Your task to perform on an android device: turn off priority inbox in the gmail app Image 0: 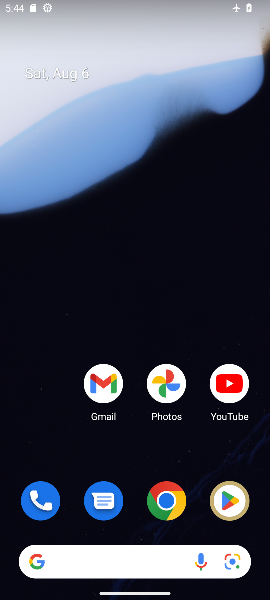
Step 0: click (107, 379)
Your task to perform on an android device: turn off priority inbox in the gmail app Image 1: 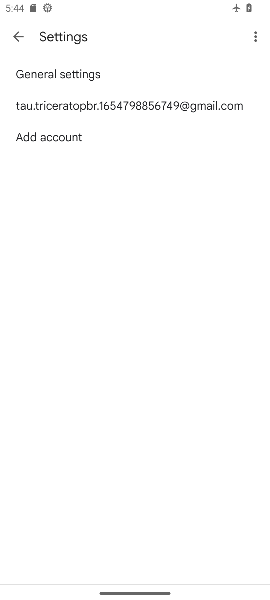
Step 1: click (114, 102)
Your task to perform on an android device: turn off priority inbox in the gmail app Image 2: 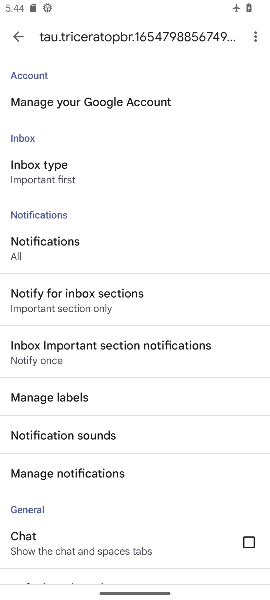
Step 2: click (90, 163)
Your task to perform on an android device: turn off priority inbox in the gmail app Image 3: 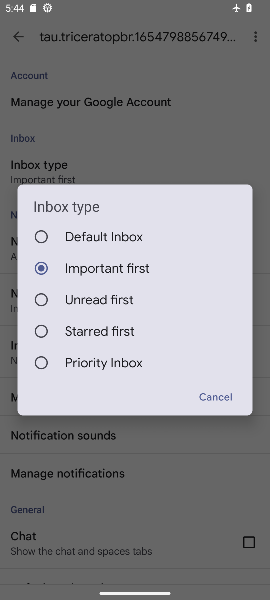
Step 3: task complete